Your task to perform on an android device: uninstall "Skype" Image 0: 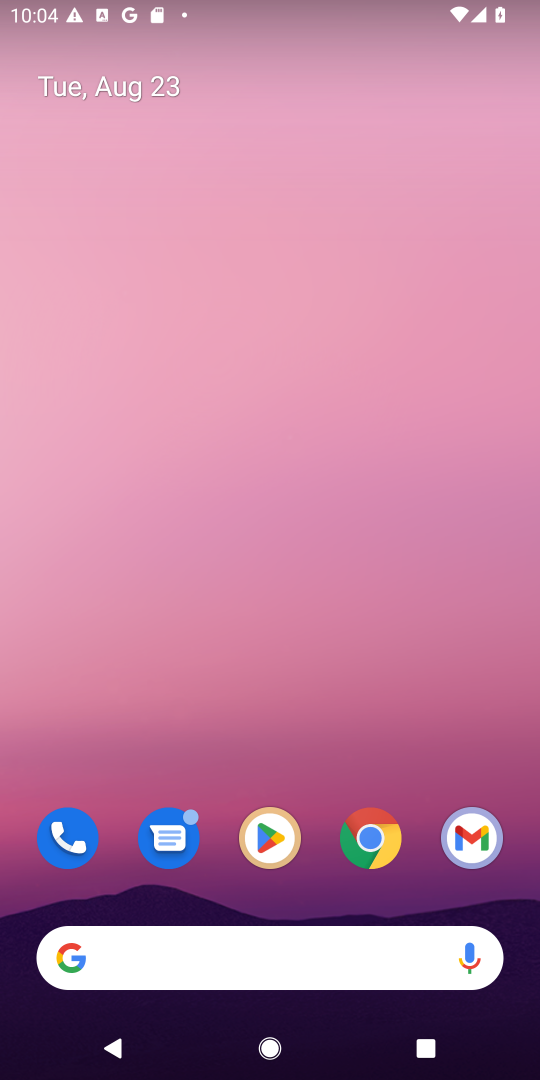
Step 0: click (275, 827)
Your task to perform on an android device: uninstall "Skype" Image 1: 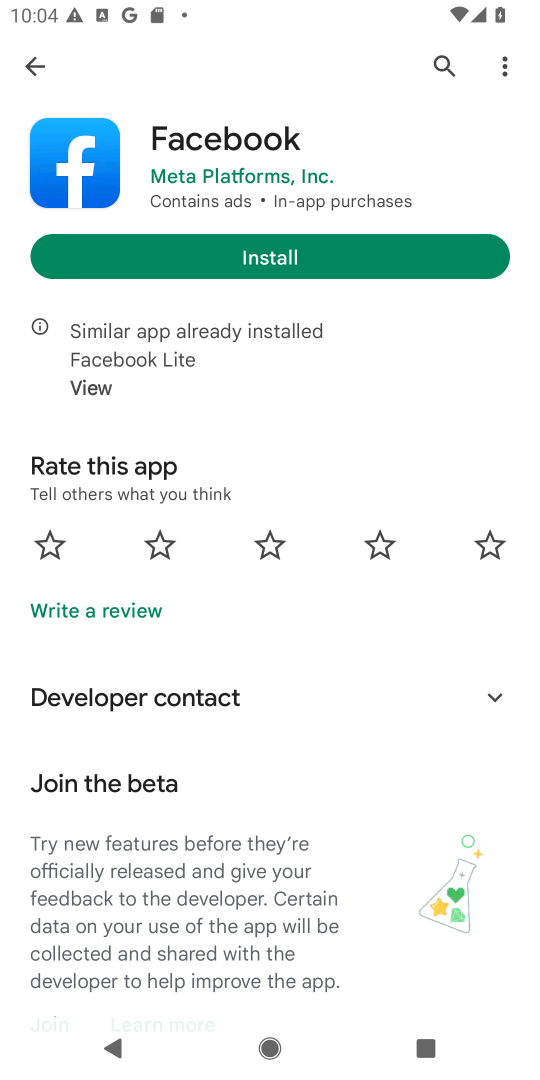
Step 1: click (431, 55)
Your task to perform on an android device: uninstall "Skype" Image 2: 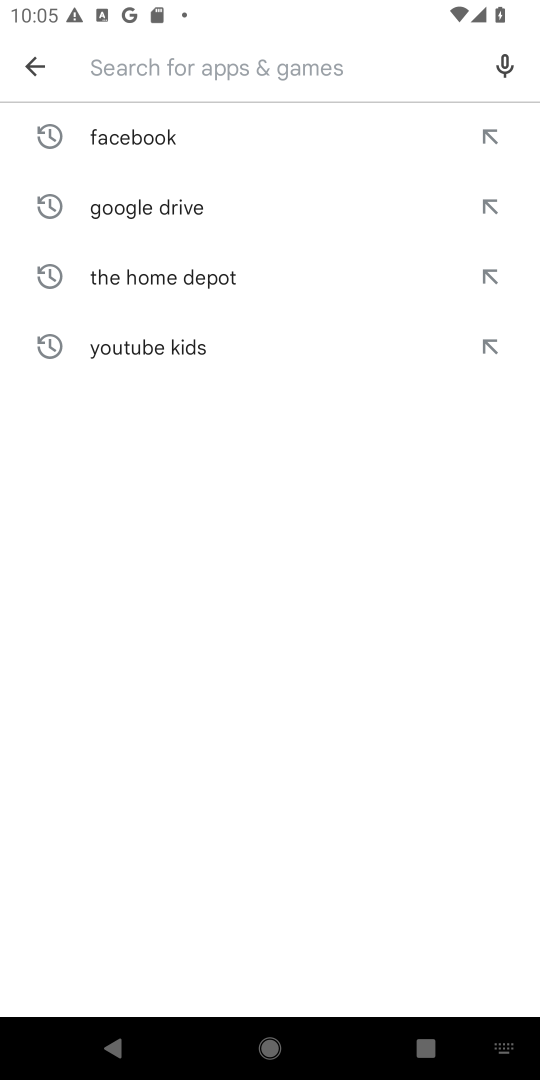
Step 2: type "Skype"
Your task to perform on an android device: uninstall "Skype" Image 3: 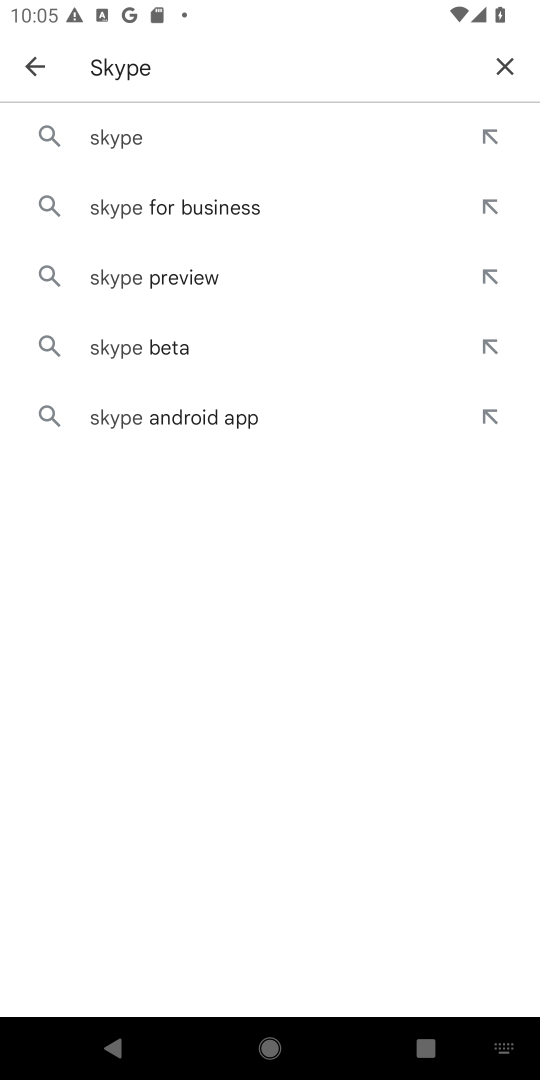
Step 3: click (135, 139)
Your task to perform on an android device: uninstall "Skype" Image 4: 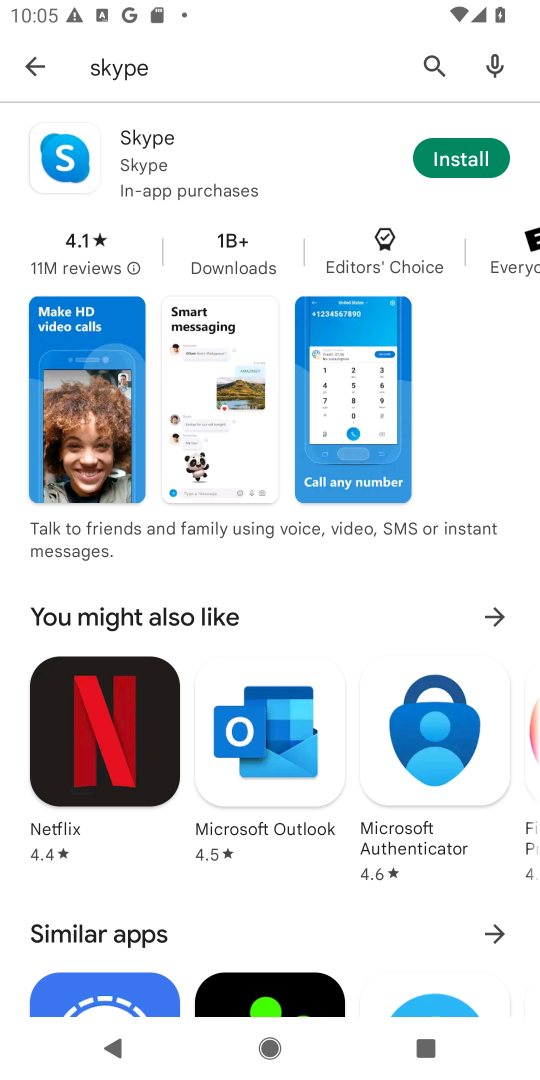
Step 4: task complete